Your task to perform on an android device: How much does a 3 bedroom apartment rent for in Chicago? Image 0: 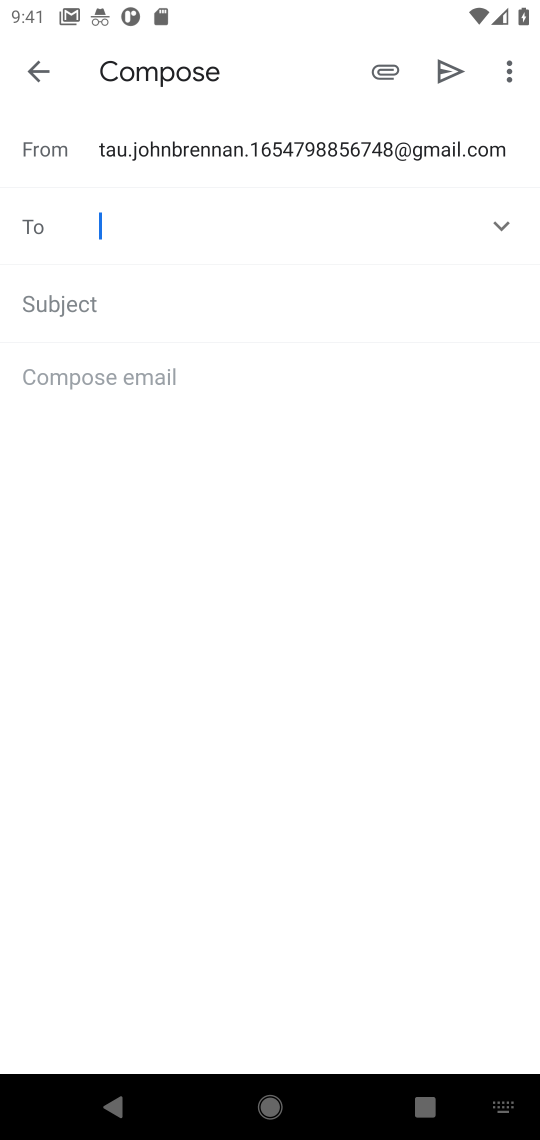
Step 0: press home button
Your task to perform on an android device: How much does a 3 bedroom apartment rent for in Chicago? Image 1: 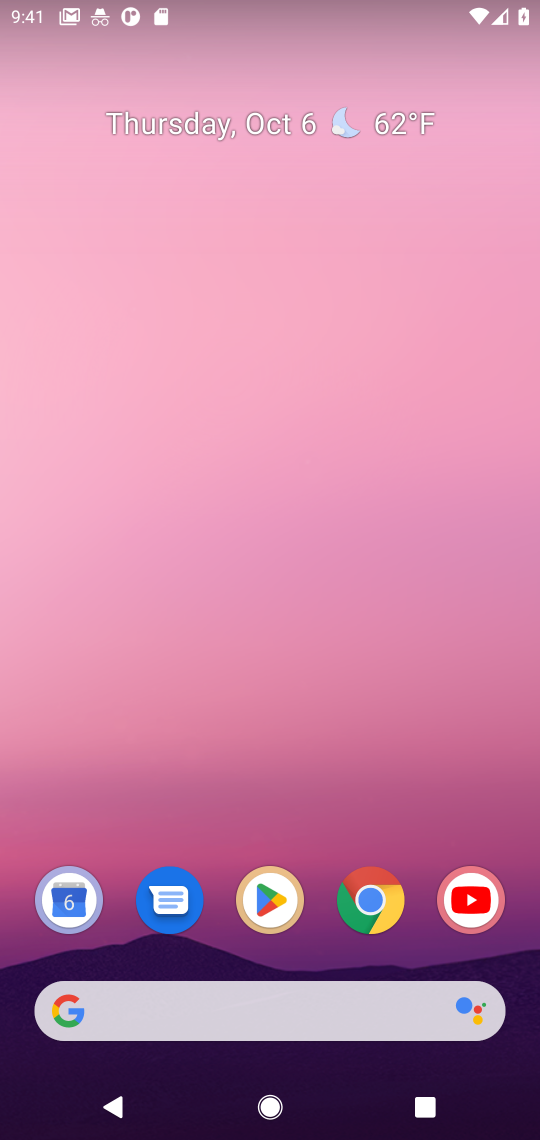
Step 1: click (399, 1000)
Your task to perform on an android device: How much does a 3 bedroom apartment rent for in Chicago? Image 2: 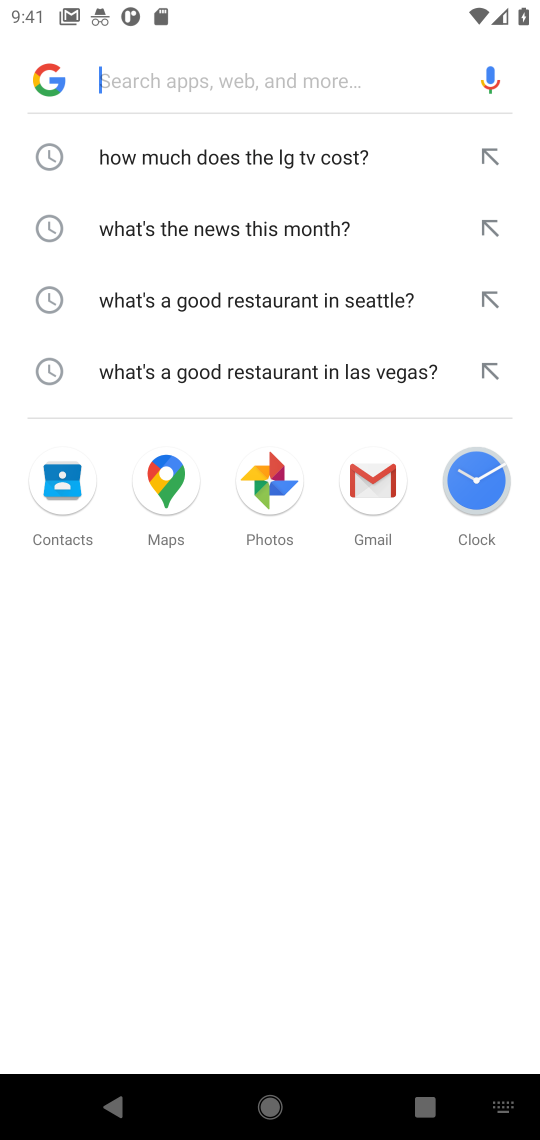
Step 2: type "3 bedroom apartment rent for in Chicago"
Your task to perform on an android device: How much does a 3 bedroom apartment rent for in Chicago? Image 3: 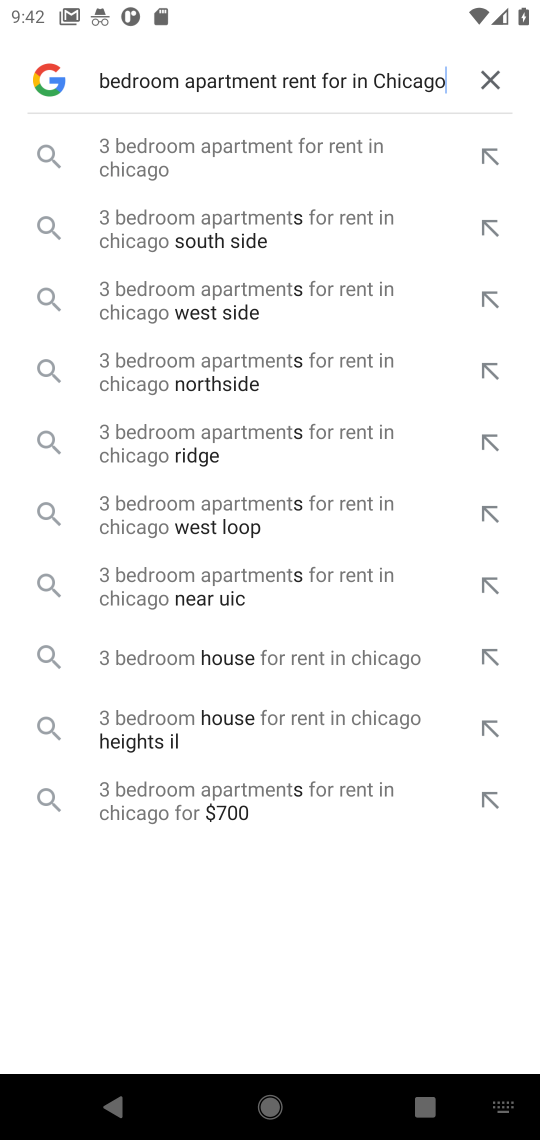
Step 3: press enter
Your task to perform on an android device: How much does a 3 bedroom apartment rent for in Chicago? Image 4: 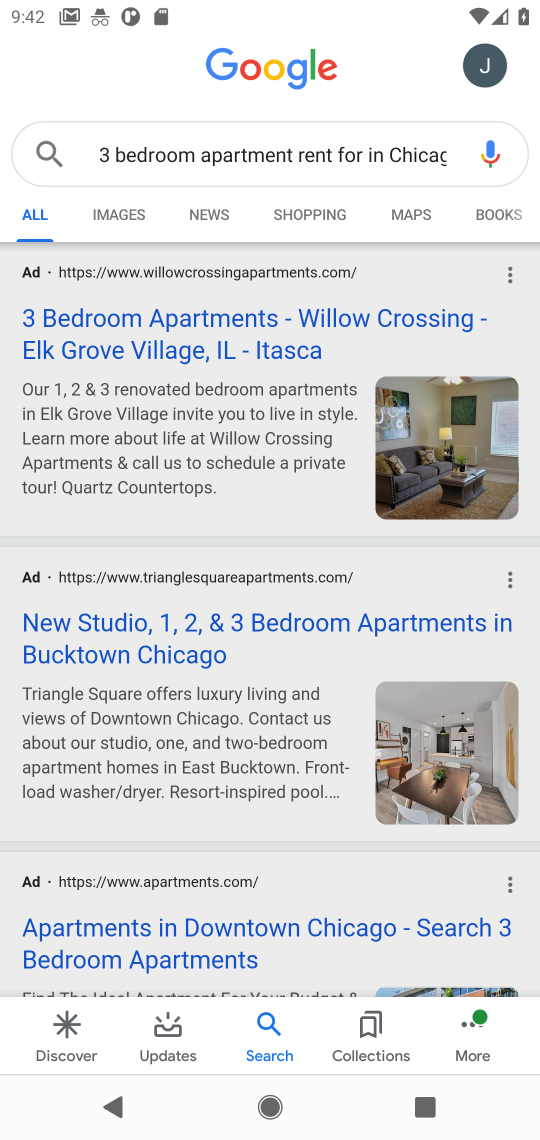
Step 4: click (249, 328)
Your task to perform on an android device: How much does a 3 bedroom apartment rent for in Chicago? Image 5: 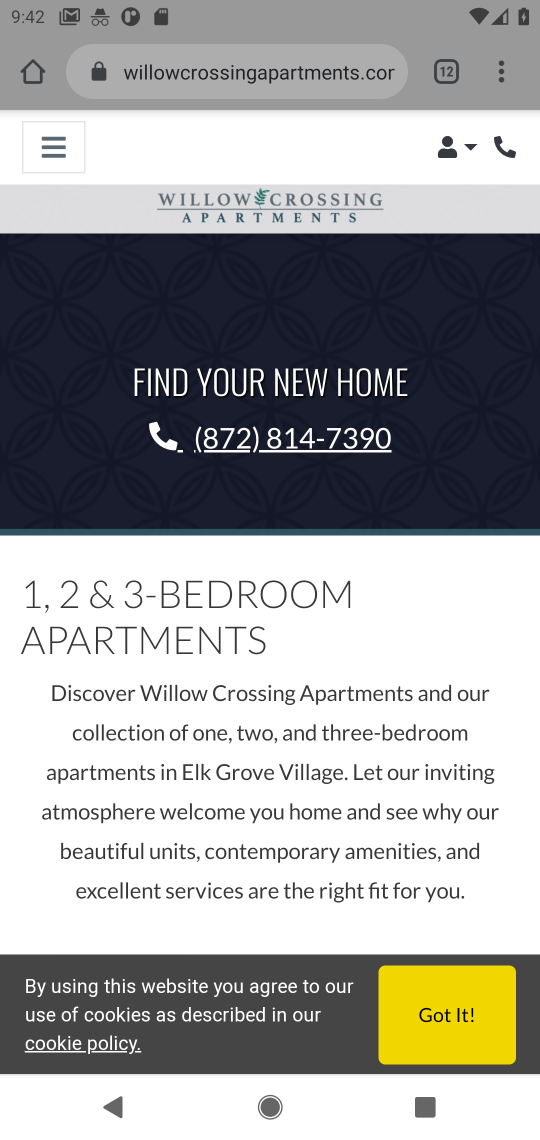
Step 5: drag from (367, 787) to (334, 310)
Your task to perform on an android device: How much does a 3 bedroom apartment rent for in Chicago? Image 6: 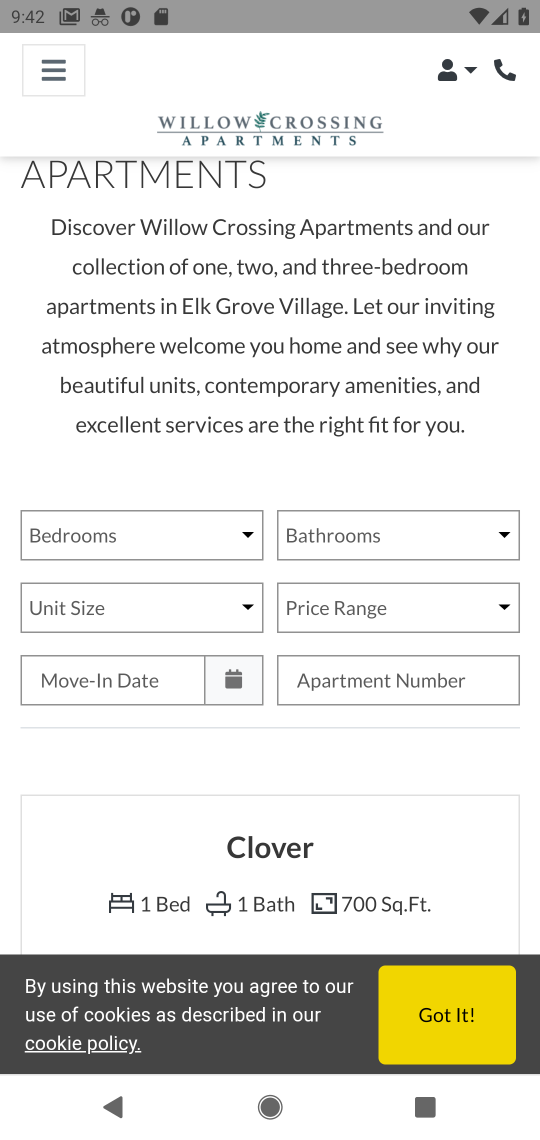
Step 6: drag from (239, 815) to (251, 282)
Your task to perform on an android device: How much does a 3 bedroom apartment rent for in Chicago? Image 7: 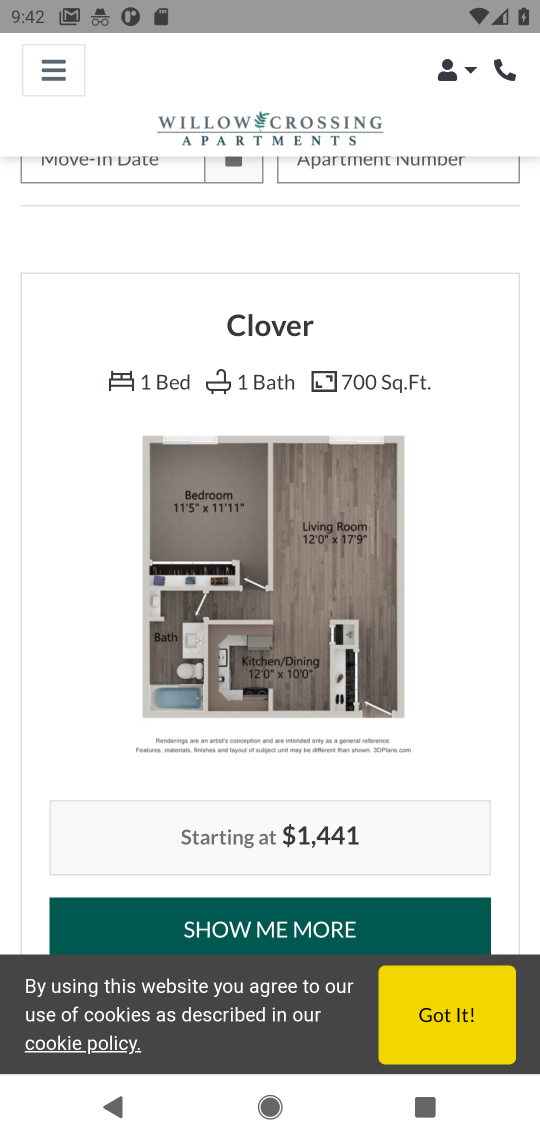
Step 7: drag from (79, 675) to (79, 331)
Your task to perform on an android device: How much does a 3 bedroom apartment rent for in Chicago? Image 8: 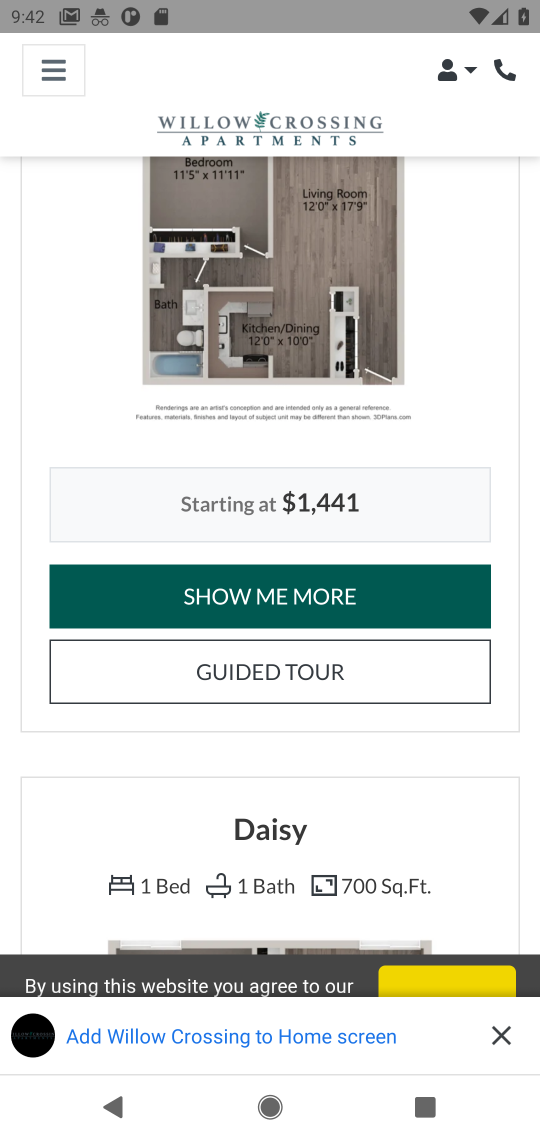
Step 8: press back button
Your task to perform on an android device: How much does a 3 bedroom apartment rent for in Chicago? Image 9: 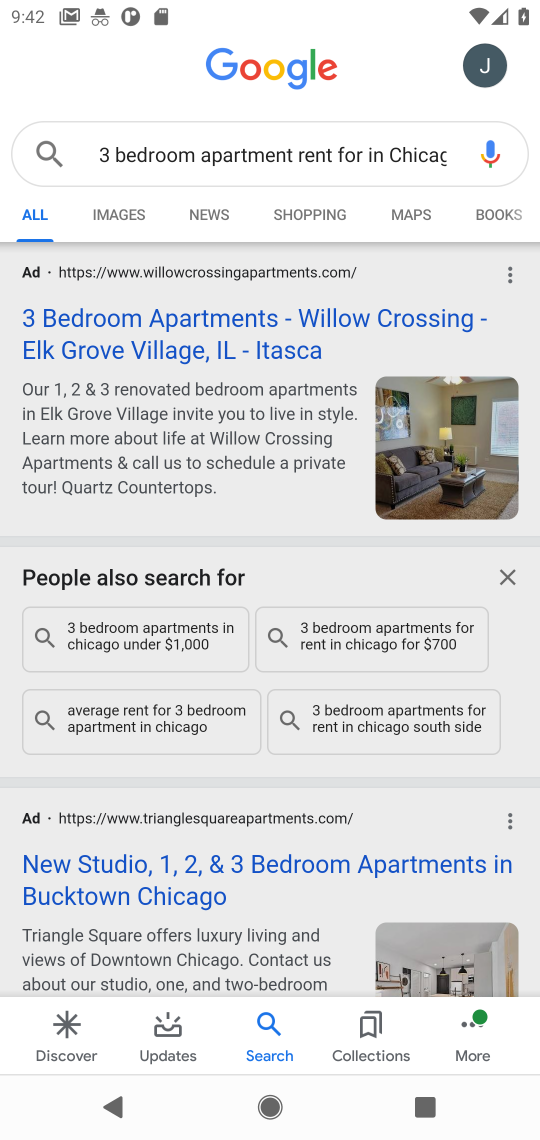
Step 9: click (238, 876)
Your task to perform on an android device: How much does a 3 bedroom apartment rent for in Chicago? Image 10: 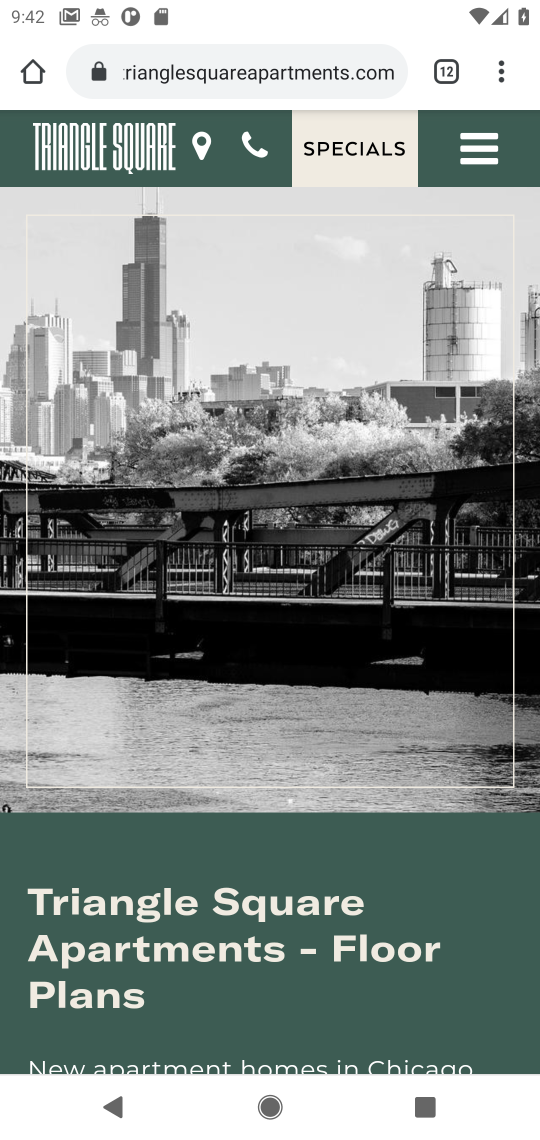
Step 10: task complete